Your task to perform on an android device: Open settings Image 0: 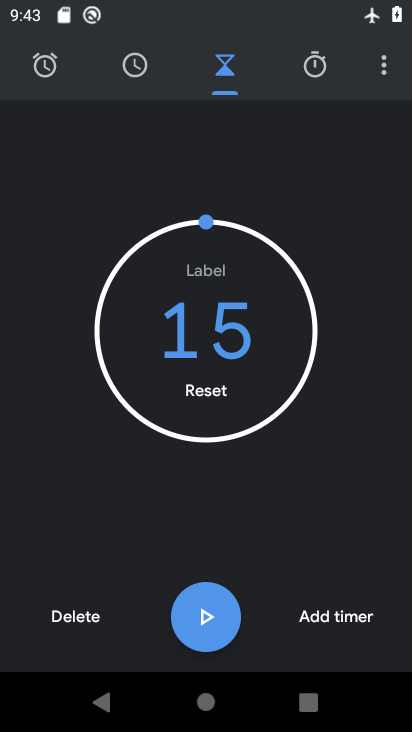
Step 0: press home button
Your task to perform on an android device: Open settings Image 1: 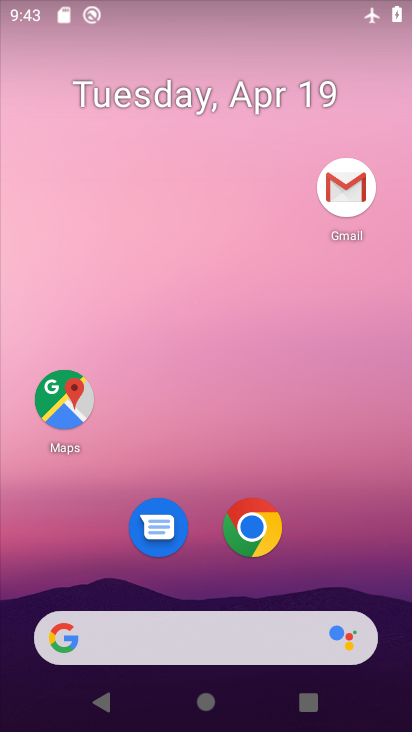
Step 1: drag from (368, 531) to (360, 120)
Your task to perform on an android device: Open settings Image 2: 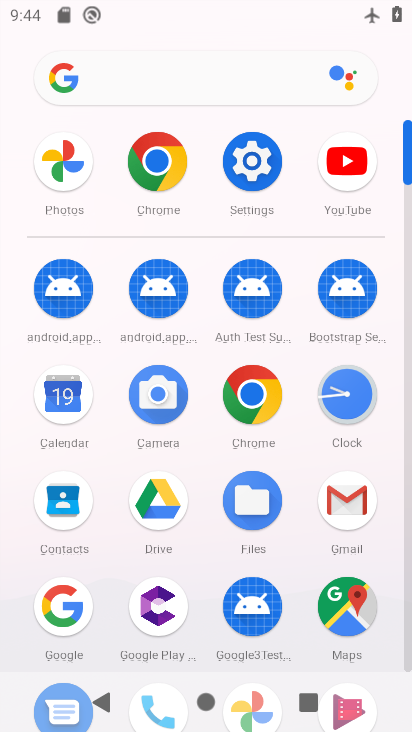
Step 2: click (263, 171)
Your task to perform on an android device: Open settings Image 3: 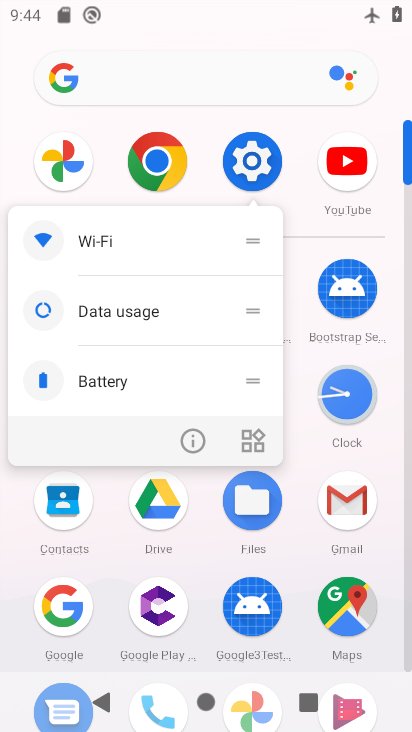
Step 3: click (262, 169)
Your task to perform on an android device: Open settings Image 4: 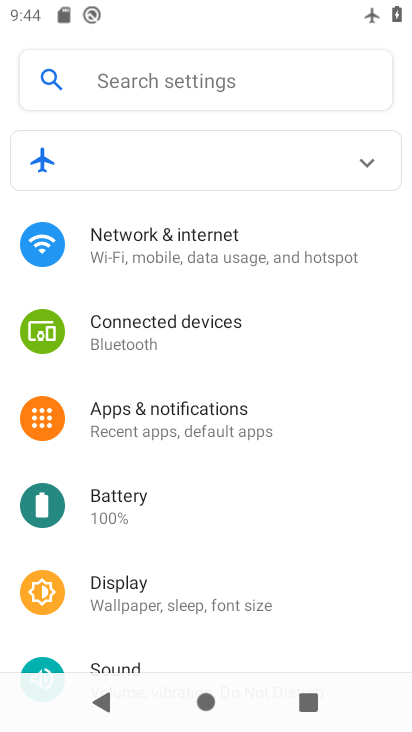
Step 4: task complete